Your task to perform on an android device: show emergency info Image 0: 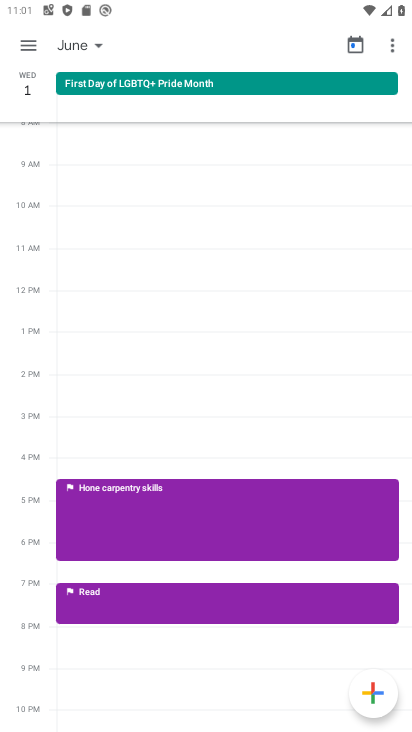
Step 0: press home button
Your task to perform on an android device: show emergency info Image 1: 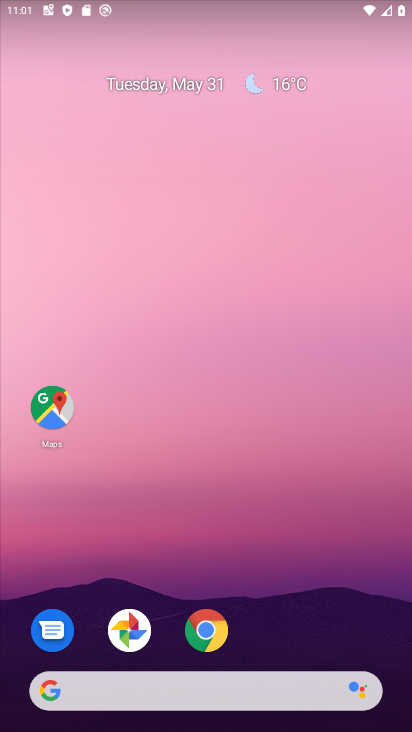
Step 1: drag from (276, 617) to (281, 182)
Your task to perform on an android device: show emergency info Image 2: 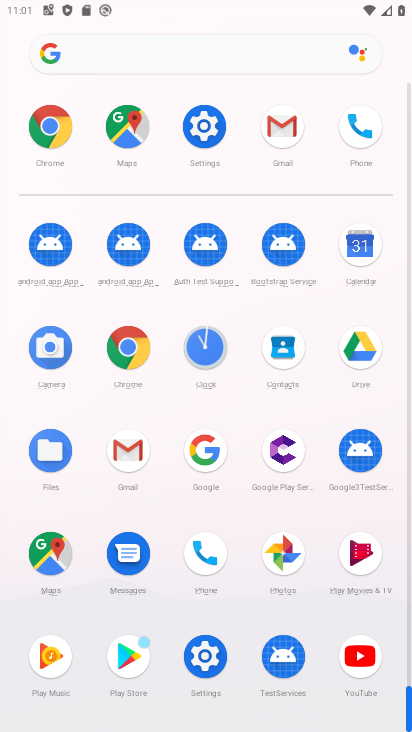
Step 2: click (198, 121)
Your task to perform on an android device: show emergency info Image 3: 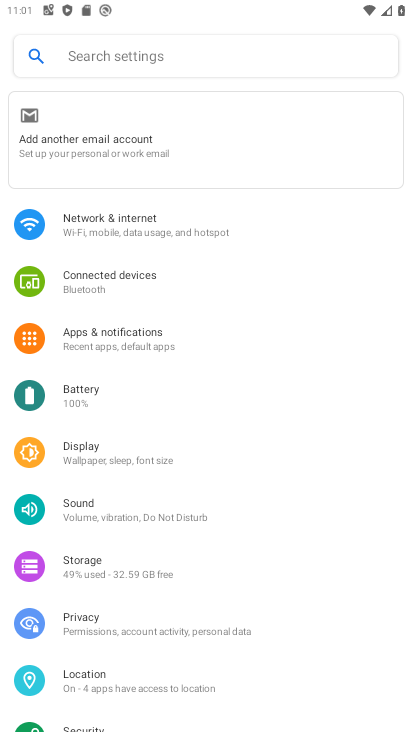
Step 3: drag from (186, 649) to (236, 328)
Your task to perform on an android device: show emergency info Image 4: 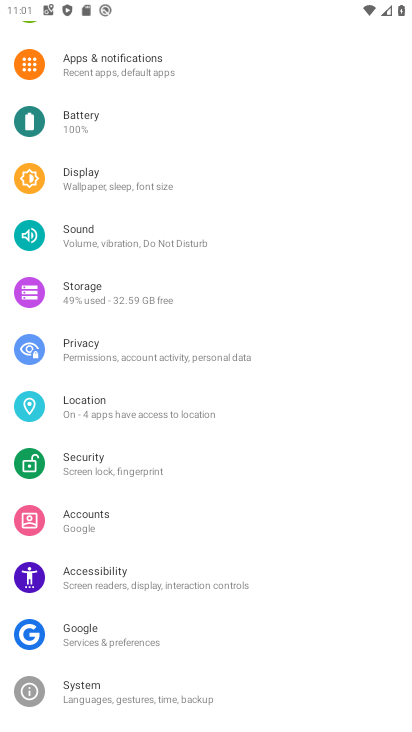
Step 4: drag from (146, 668) to (244, 195)
Your task to perform on an android device: show emergency info Image 5: 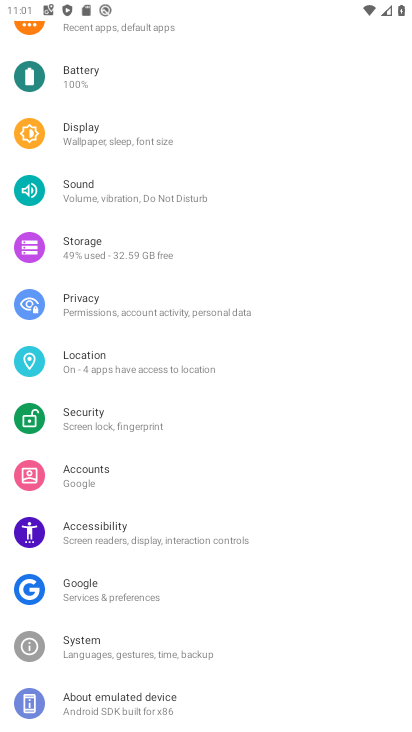
Step 5: click (132, 703)
Your task to perform on an android device: show emergency info Image 6: 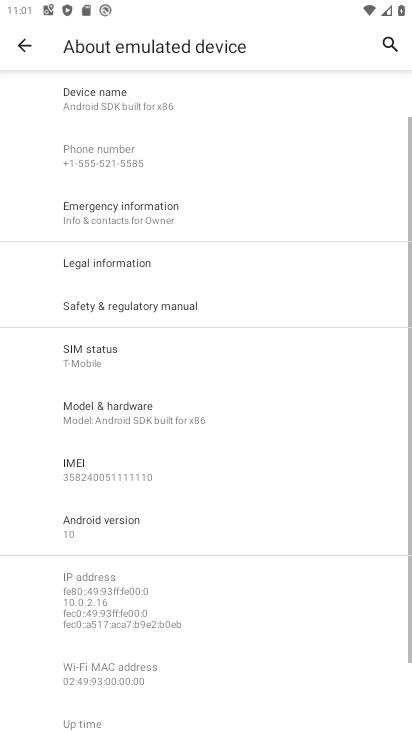
Step 6: click (196, 202)
Your task to perform on an android device: show emergency info Image 7: 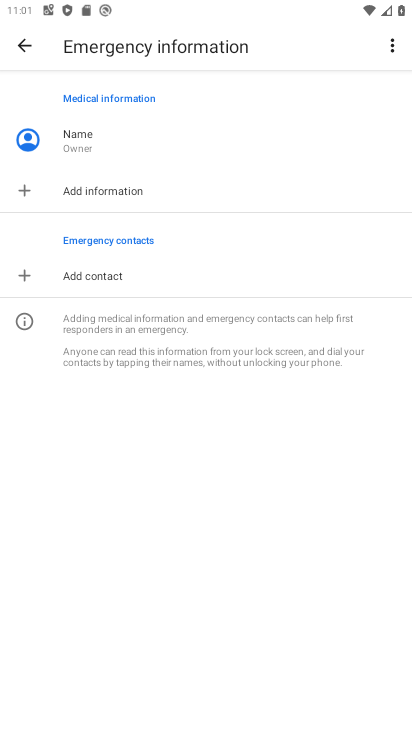
Step 7: task complete